Your task to perform on an android device: check out phone information Image 0: 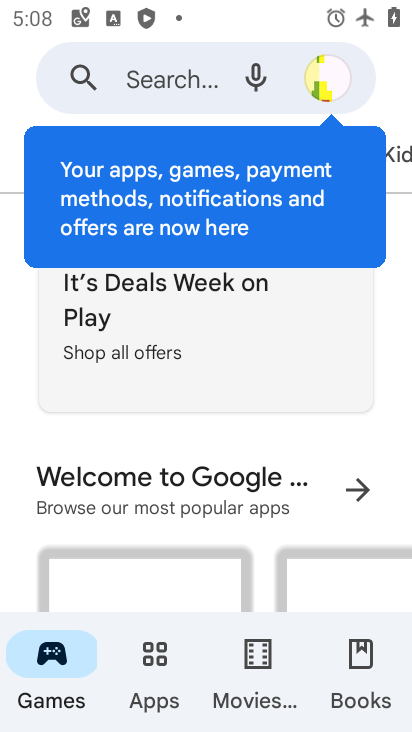
Step 0: press home button
Your task to perform on an android device: check out phone information Image 1: 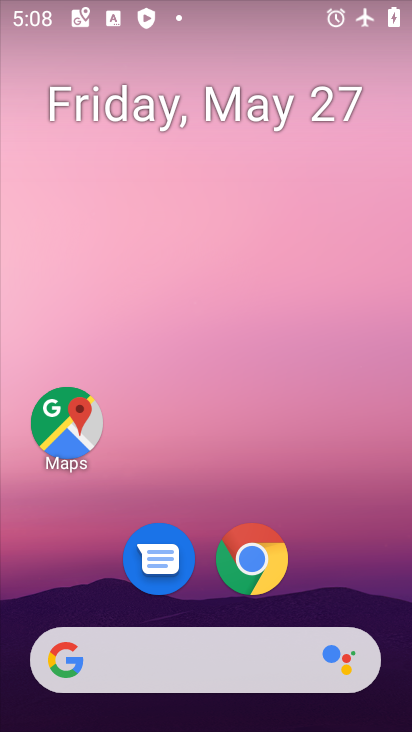
Step 1: drag from (224, 664) to (310, 40)
Your task to perform on an android device: check out phone information Image 2: 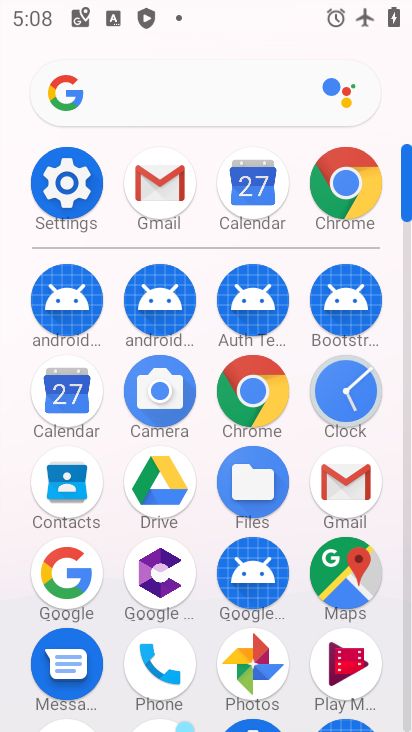
Step 2: click (72, 170)
Your task to perform on an android device: check out phone information Image 3: 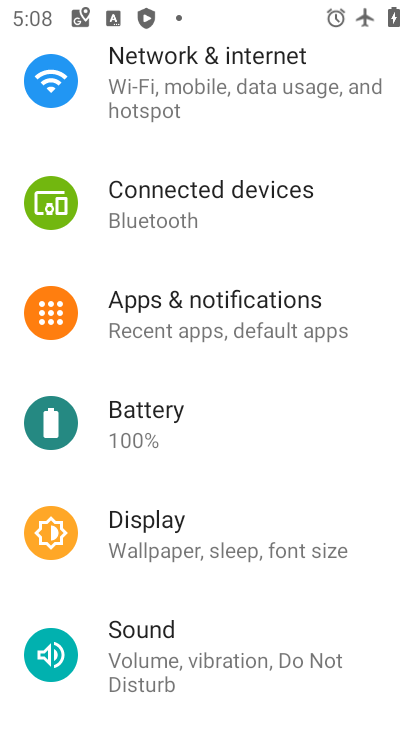
Step 3: drag from (274, 658) to (390, 4)
Your task to perform on an android device: check out phone information Image 4: 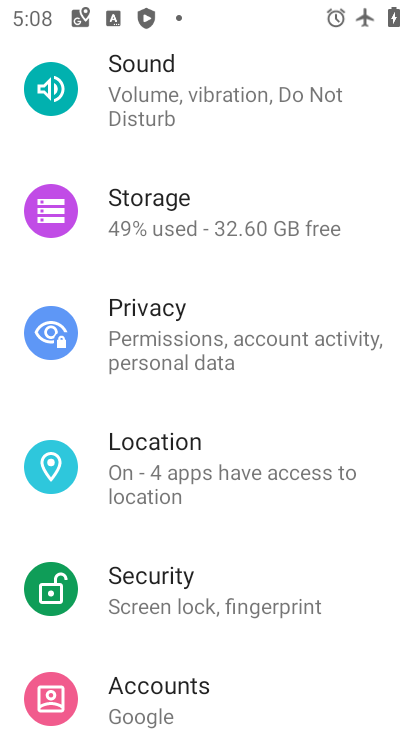
Step 4: drag from (211, 649) to (304, 191)
Your task to perform on an android device: check out phone information Image 5: 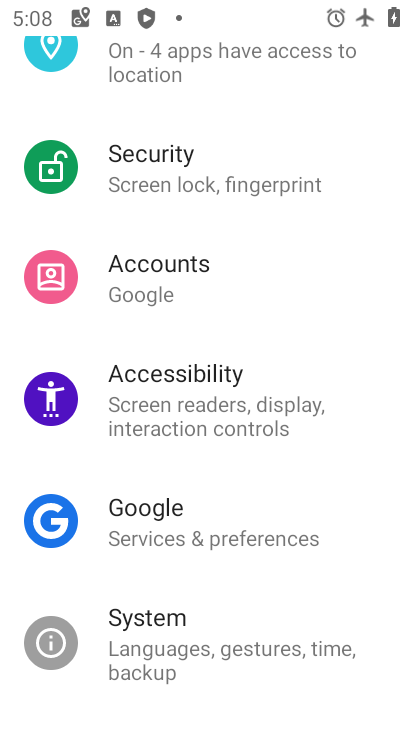
Step 5: drag from (224, 659) to (281, 244)
Your task to perform on an android device: check out phone information Image 6: 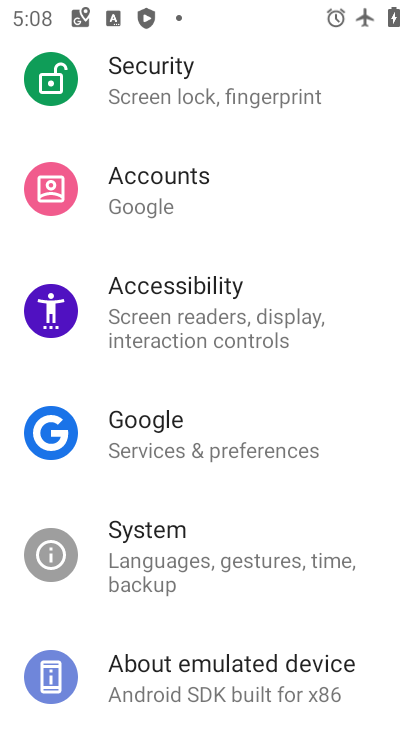
Step 6: click (197, 666)
Your task to perform on an android device: check out phone information Image 7: 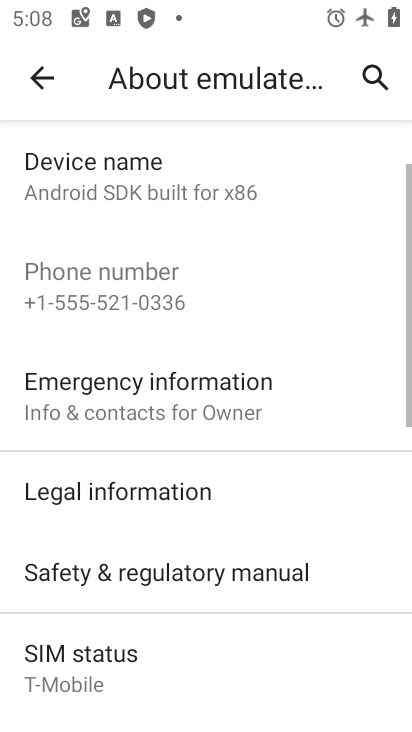
Step 7: task complete